Your task to perform on an android device: Add "asus rog" to the cart on walmart.com, then select checkout. Image 0: 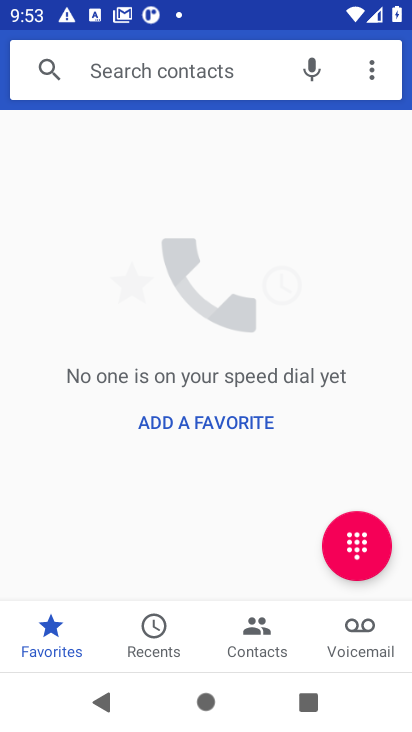
Step 0: press home button
Your task to perform on an android device: Add "asus rog" to the cart on walmart.com, then select checkout. Image 1: 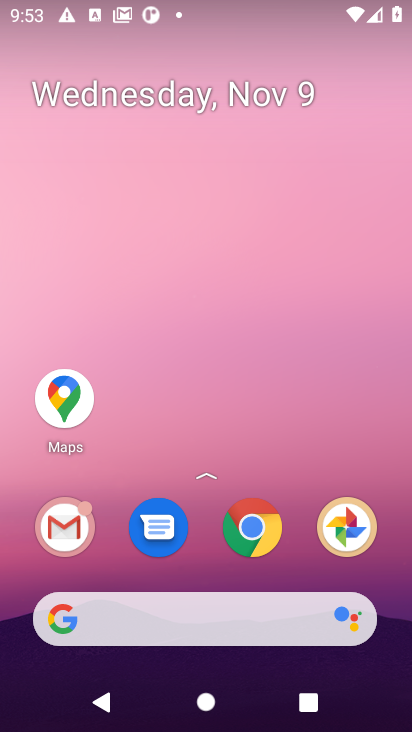
Step 1: click (252, 534)
Your task to perform on an android device: Add "asus rog" to the cart on walmart.com, then select checkout. Image 2: 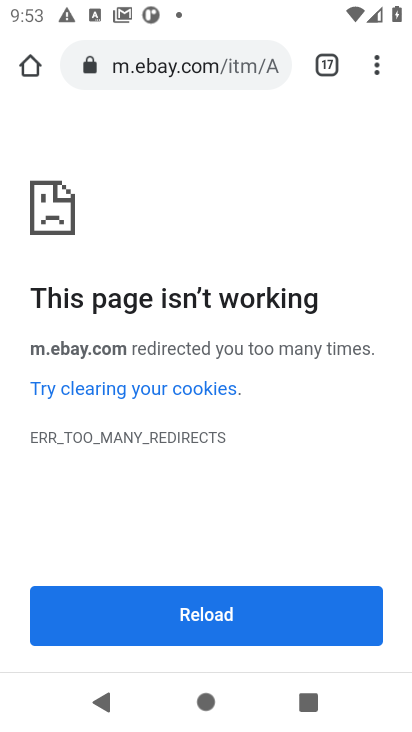
Step 2: click (182, 70)
Your task to perform on an android device: Add "asus rog" to the cart on walmart.com, then select checkout. Image 3: 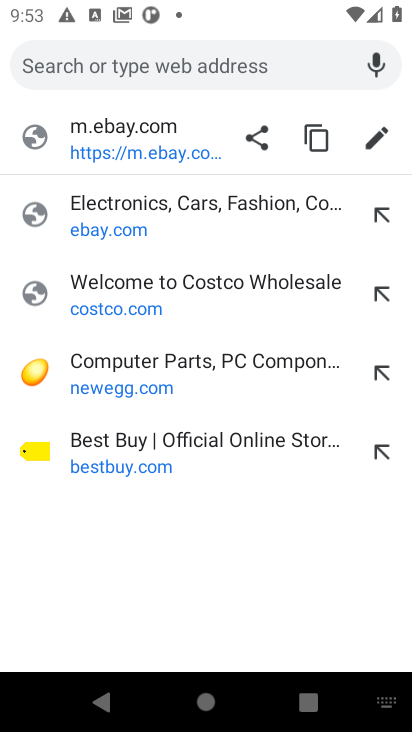
Step 3: type "walmart.com"
Your task to perform on an android device: Add "asus rog" to the cart on walmart.com, then select checkout. Image 4: 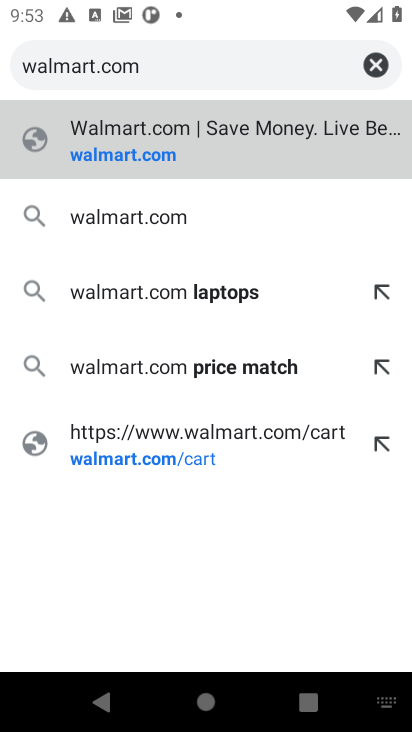
Step 4: click (124, 156)
Your task to perform on an android device: Add "asus rog" to the cart on walmart.com, then select checkout. Image 5: 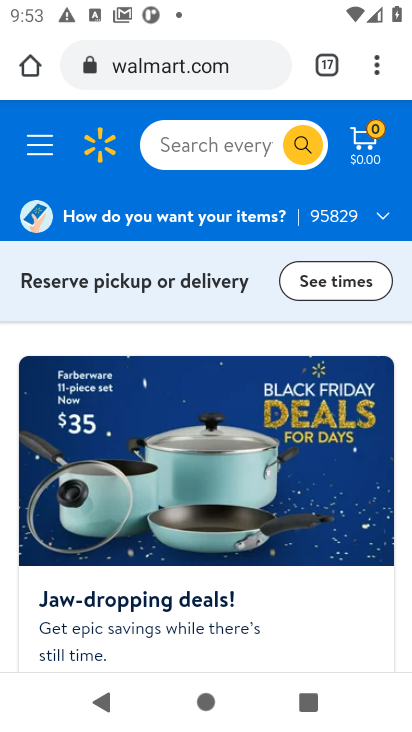
Step 5: click (195, 144)
Your task to perform on an android device: Add "asus rog" to the cart on walmart.com, then select checkout. Image 6: 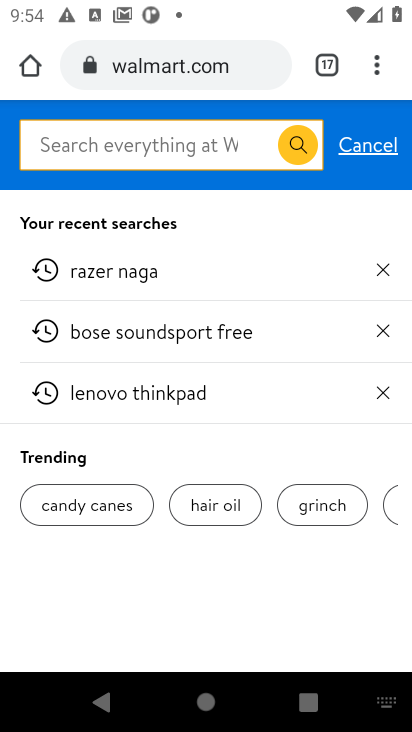
Step 6: type "asus rog"
Your task to perform on an android device: Add "asus rog" to the cart on walmart.com, then select checkout. Image 7: 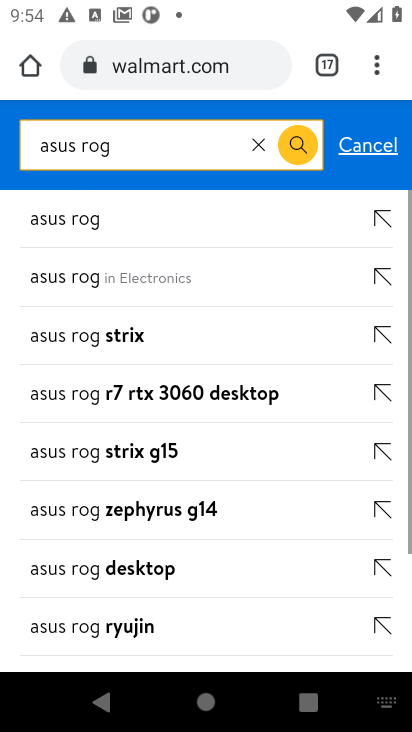
Step 7: click (82, 215)
Your task to perform on an android device: Add "asus rog" to the cart on walmart.com, then select checkout. Image 8: 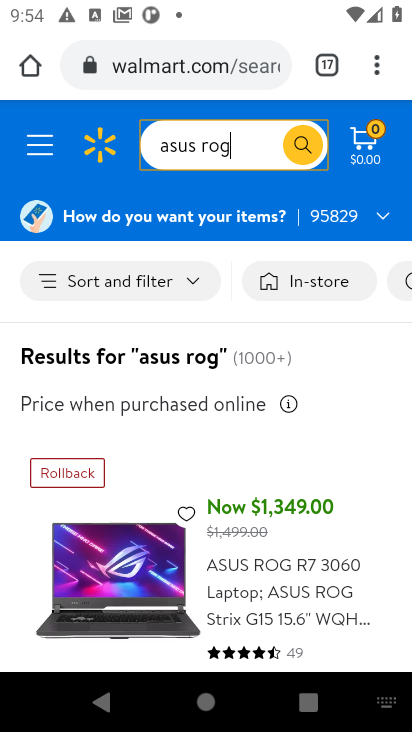
Step 8: drag from (177, 441) to (149, 104)
Your task to perform on an android device: Add "asus rog" to the cart on walmart.com, then select checkout. Image 9: 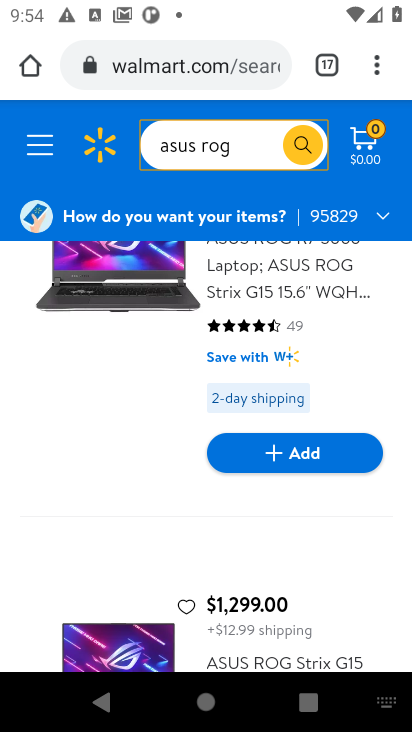
Step 9: click (298, 450)
Your task to perform on an android device: Add "asus rog" to the cart on walmart.com, then select checkout. Image 10: 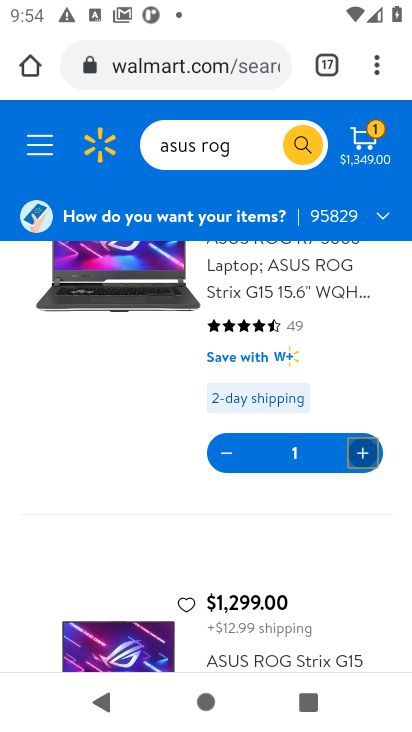
Step 10: click (357, 141)
Your task to perform on an android device: Add "asus rog" to the cart on walmart.com, then select checkout. Image 11: 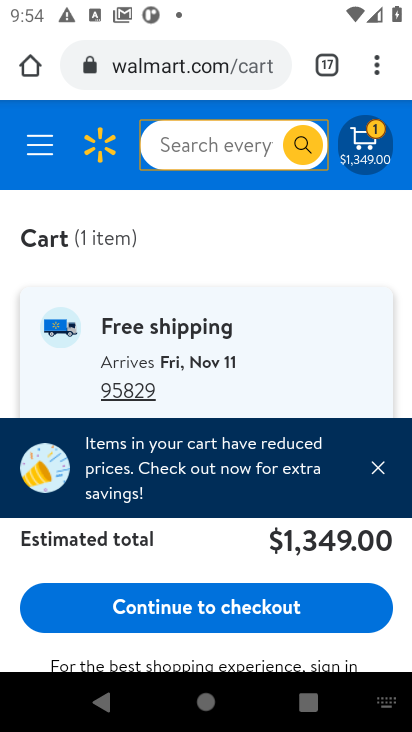
Step 11: click (190, 608)
Your task to perform on an android device: Add "asus rog" to the cart on walmart.com, then select checkout. Image 12: 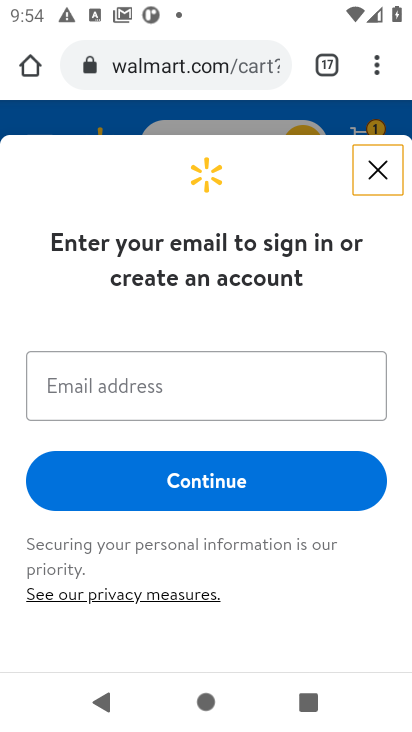
Step 12: task complete